Your task to perform on an android device: choose inbox layout in the gmail app Image 0: 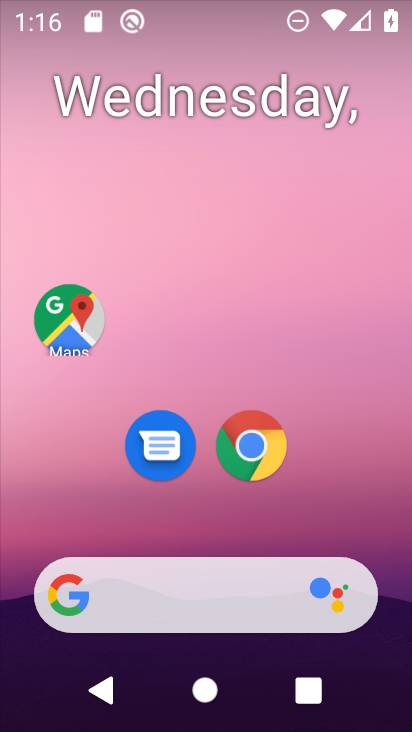
Step 0: drag from (404, 614) to (260, 39)
Your task to perform on an android device: choose inbox layout in the gmail app Image 1: 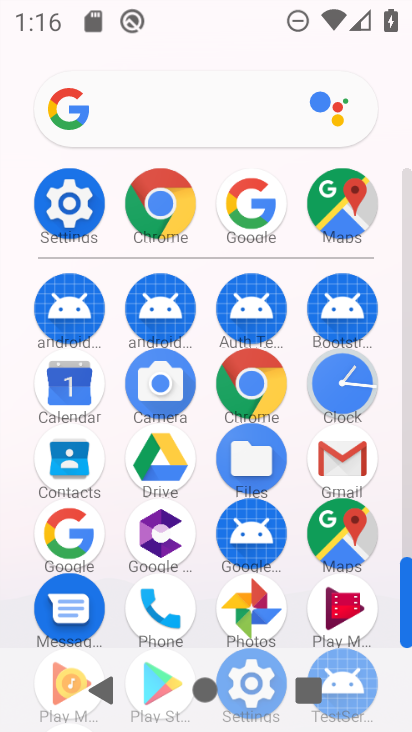
Step 1: click (344, 475)
Your task to perform on an android device: choose inbox layout in the gmail app Image 2: 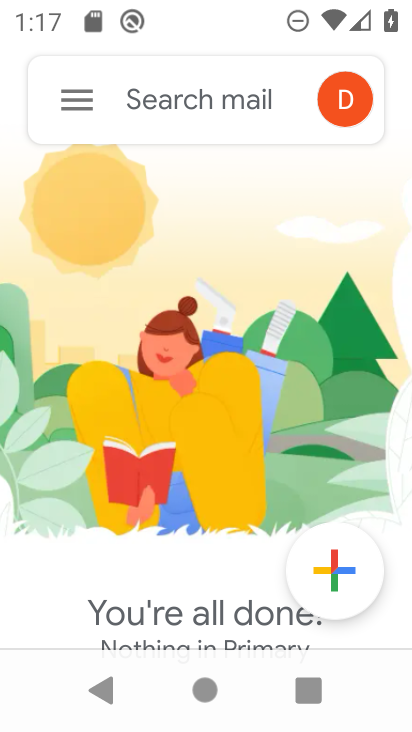
Step 2: task complete